Your task to perform on an android device: open sync settings in chrome Image 0: 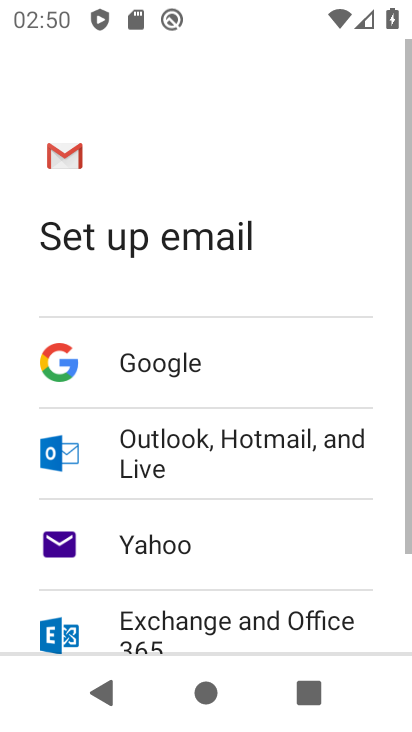
Step 0: press home button
Your task to perform on an android device: open sync settings in chrome Image 1: 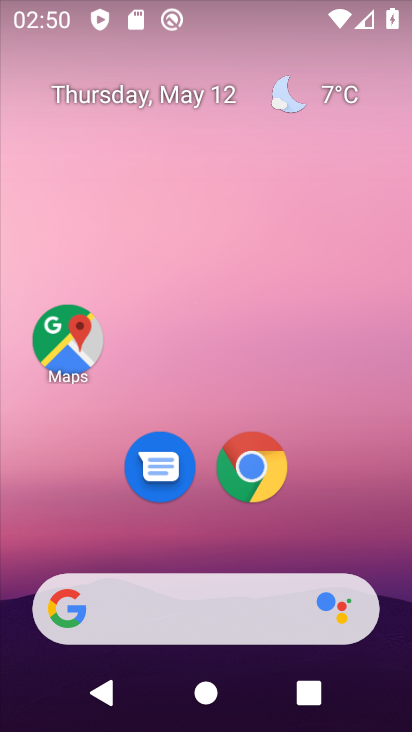
Step 1: click (245, 460)
Your task to perform on an android device: open sync settings in chrome Image 2: 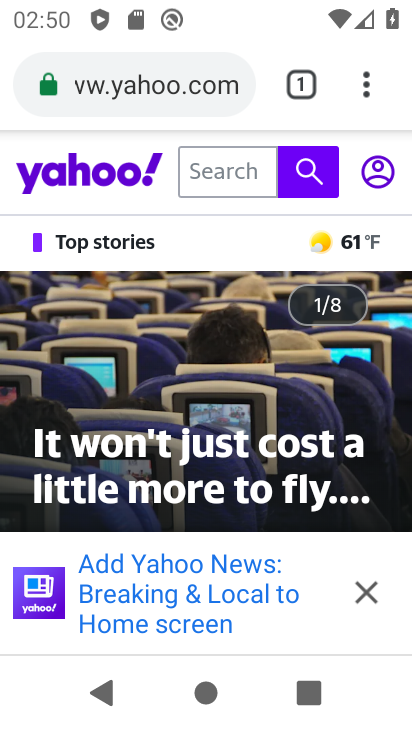
Step 2: click (365, 83)
Your task to perform on an android device: open sync settings in chrome Image 3: 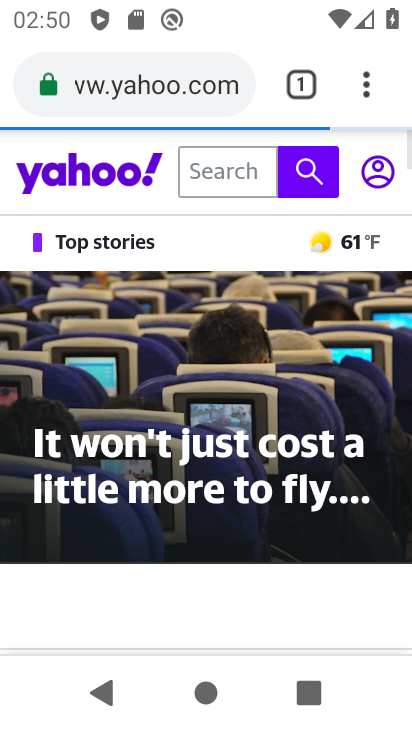
Step 3: click (366, 94)
Your task to perform on an android device: open sync settings in chrome Image 4: 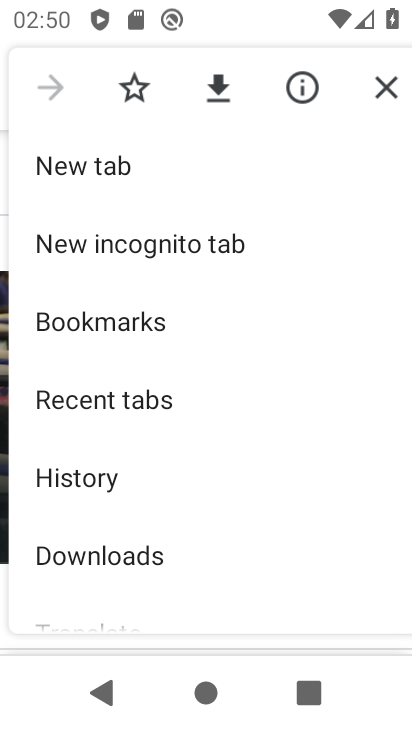
Step 4: drag from (135, 592) to (140, 272)
Your task to perform on an android device: open sync settings in chrome Image 5: 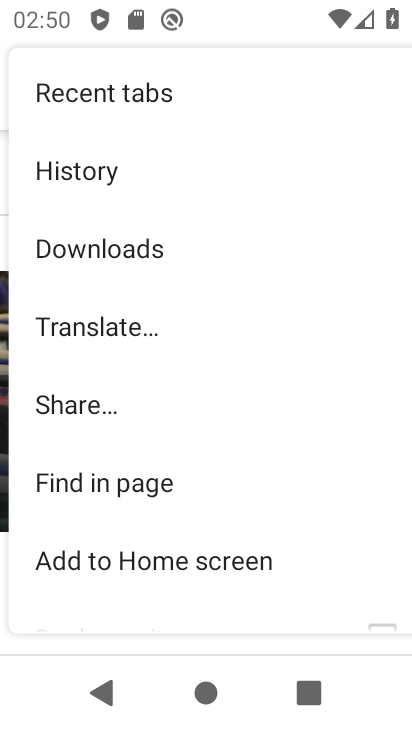
Step 5: drag from (135, 565) to (129, 288)
Your task to perform on an android device: open sync settings in chrome Image 6: 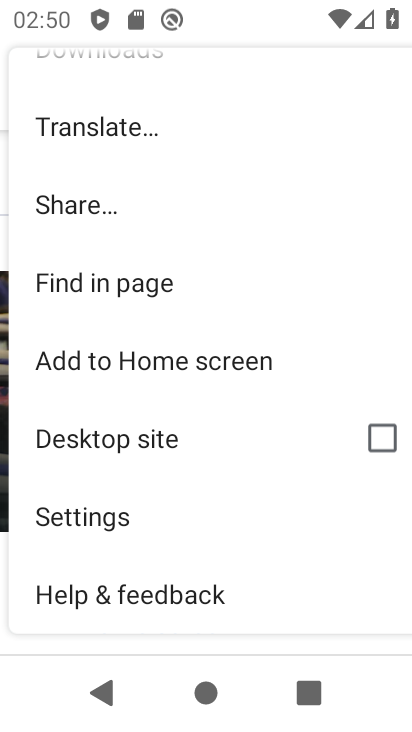
Step 6: click (125, 506)
Your task to perform on an android device: open sync settings in chrome Image 7: 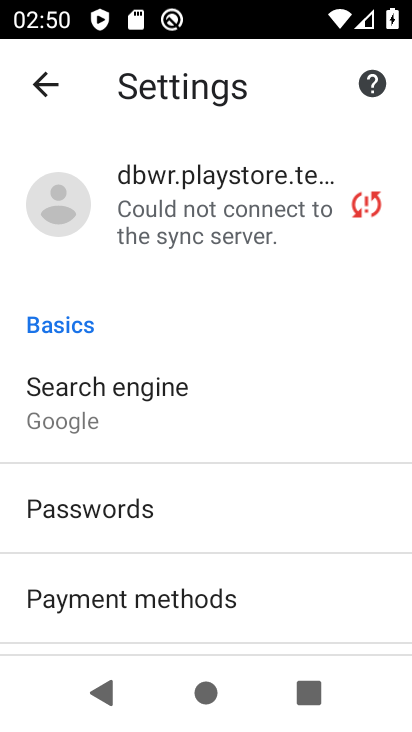
Step 7: click (149, 224)
Your task to perform on an android device: open sync settings in chrome Image 8: 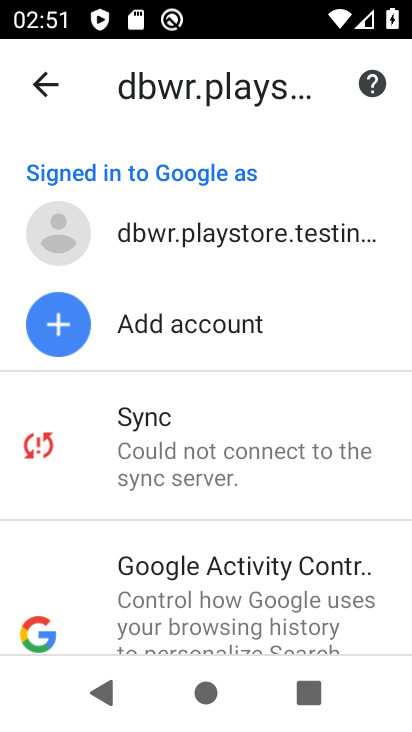
Step 8: click (208, 446)
Your task to perform on an android device: open sync settings in chrome Image 9: 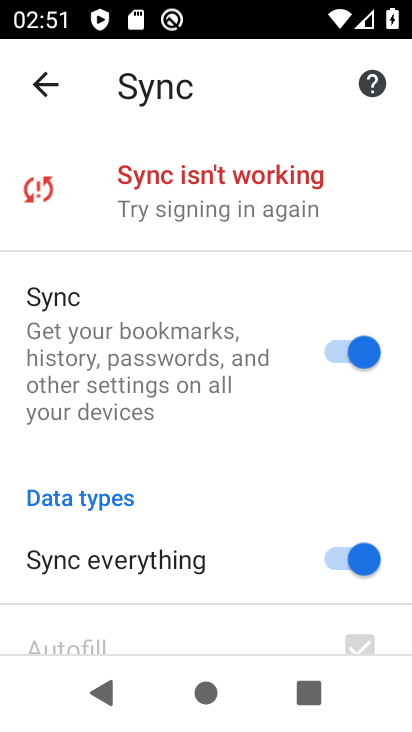
Step 9: task complete